Your task to perform on an android device: Search for Mexican restaurants on Maps Image 0: 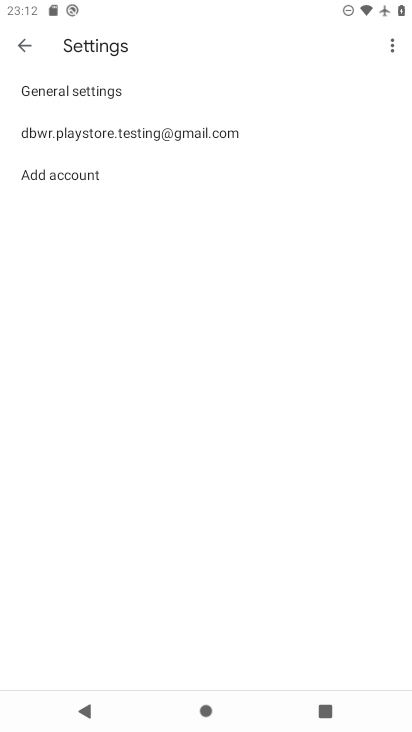
Step 0: press home button
Your task to perform on an android device: Search for Mexican restaurants on Maps Image 1: 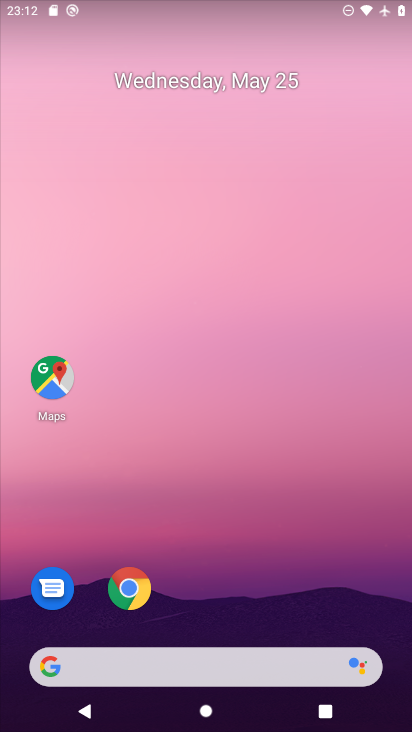
Step 1: drag from (212, 520) to (230, 55)
Your task to perform on an android device: Search for Mexican restaurants on Maps Image 2: 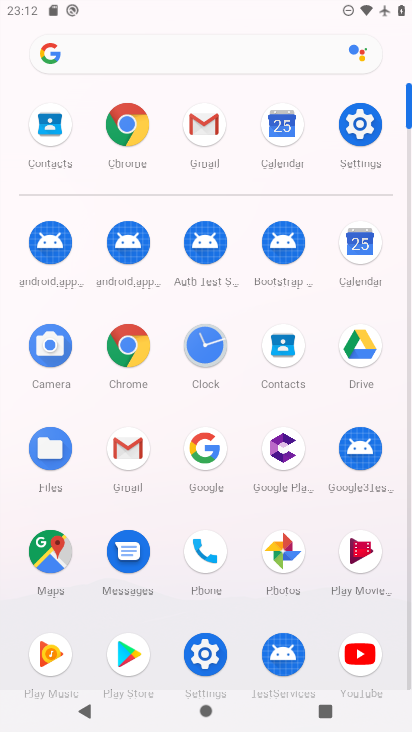
Step 2: click (39, 550)
Your task to perform on an android device: Search for Mexican restaurants on Maps Image 3: 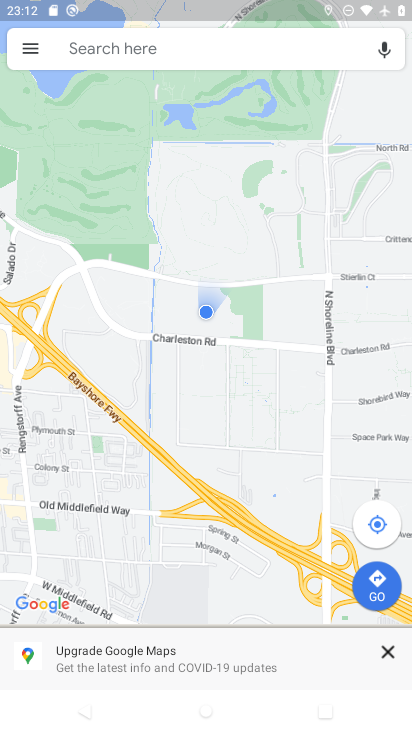
Step 3: click (158, 45)
Your task to perform on an android device: Search for Mexican restaurants on Maps Image 4: 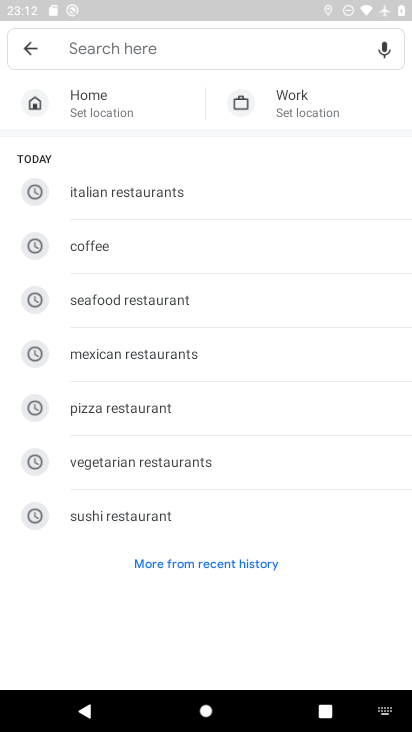
Step 4: click (153, 355)
Your task to perform on an android device: Search for Mexican restaurants on Maps Image 5: 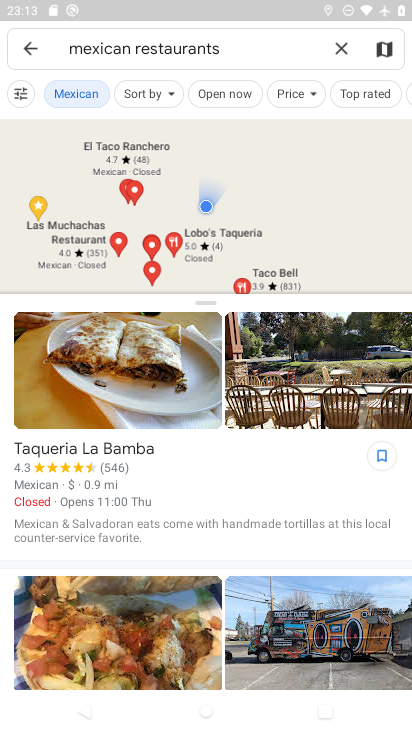
Step 5: task complete